Your task to perform on an android device: turn on data saver in the chrome app Image 0: 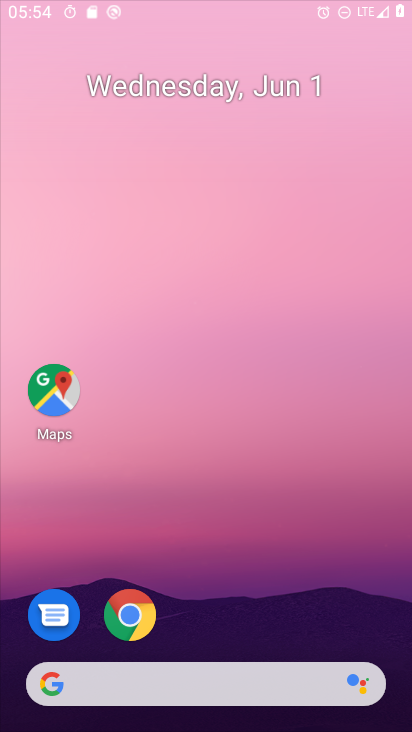
Step 0: drag from (275, 121) to (270, 33)
Your task to perform on an android device: turn on data saver in the chrome app Image 1: 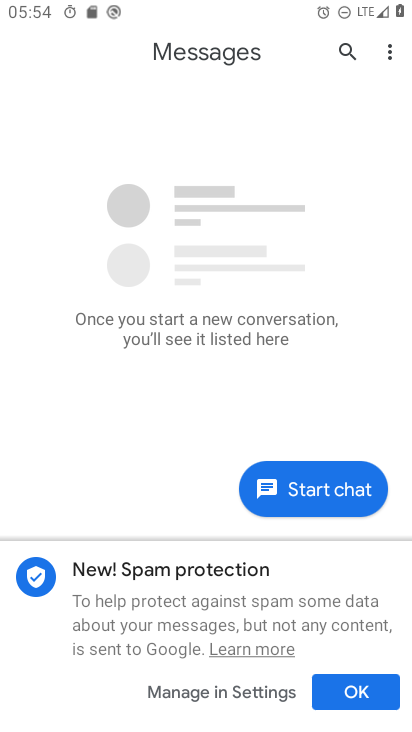
Step 1: press home button
Your task to perform on an android device: turn on data saver in the chrome app Image 2: 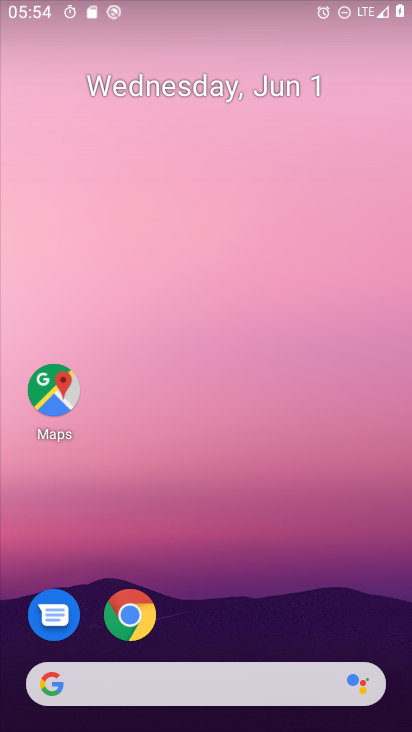
Step 2: drag from (258, 630) to (384, 0)
Your task to perform on an android device: turn on data saver in the chrome app Image 3: 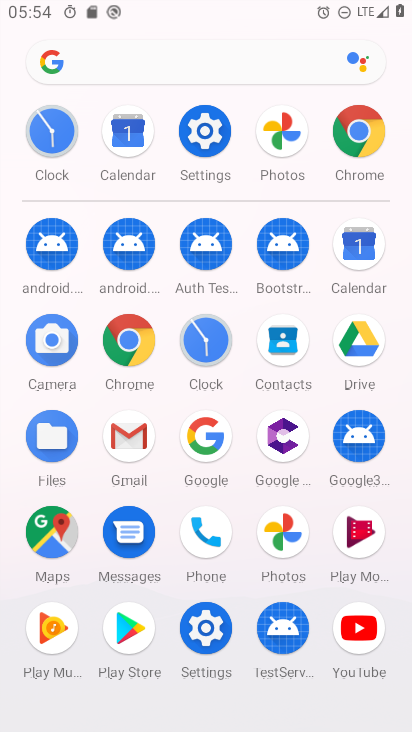
Step 3: click (132, 330)
Your task to perform on an android device: turn on data saver in the chrome app Image 4: 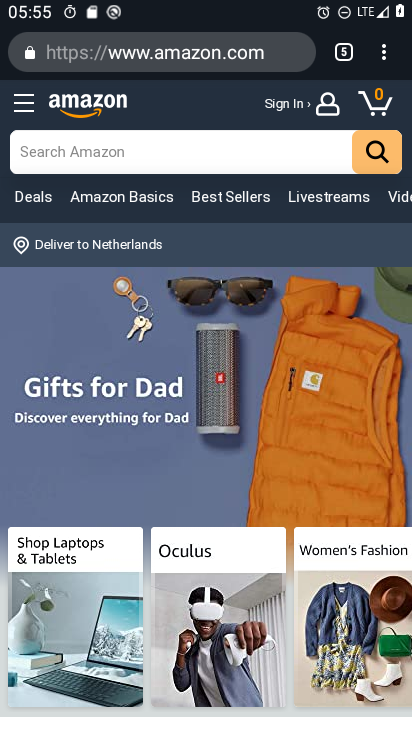
Step 4: drag from (376, 48) to (221, 629)
Your task to perform on an android device: turn on data saver in the chrome app Image 5: 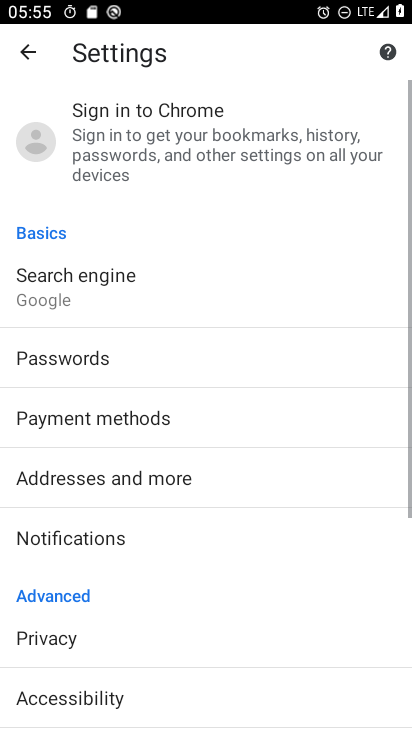
Step 5: drag from (221, 629) to (228, 212)
Your task to perform on an android device: turn on data saver in the chrome app Image 6: 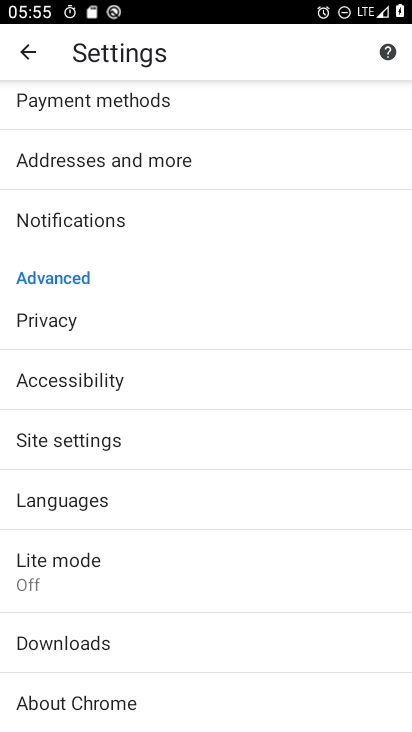
Step 6: click (109, 571)
Your task to perform on an android device: turn on data saver in the chrome app Image 7: 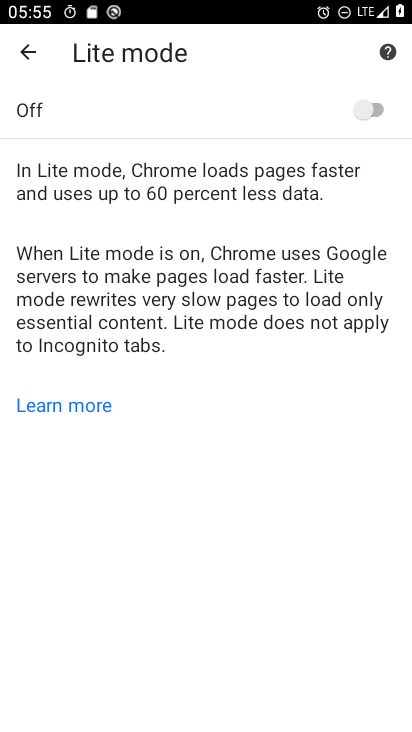
Step 7: click (378, 113)
Your task to perform on an android device: turn on data saver in the chrome app Image 8: 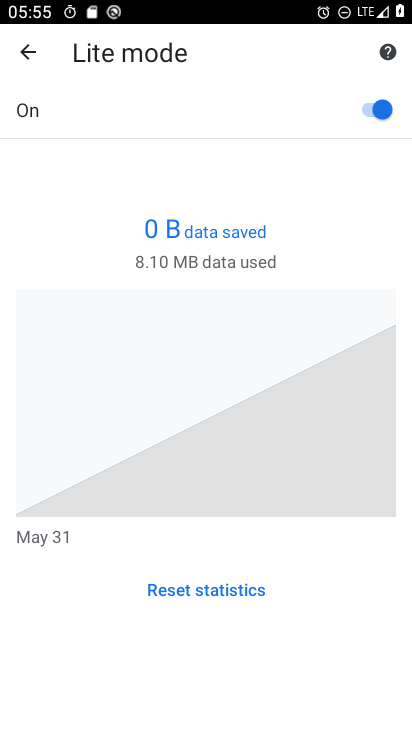
Step 8: task complete